Your task to perform on an android device: find which apps use the phone's location Image 0: 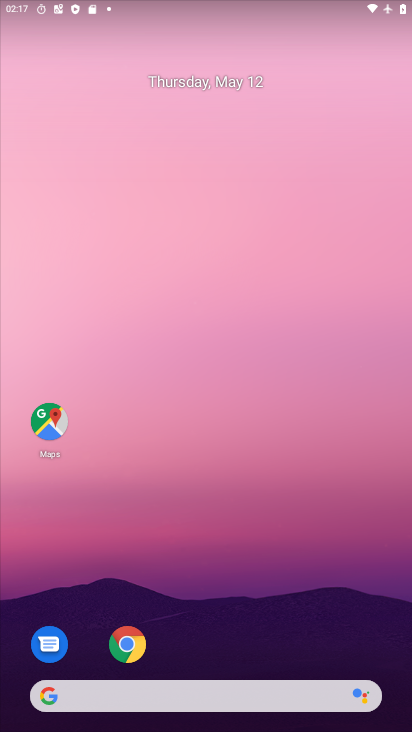
Step 0: drag from (284, 505) to (214, 134)
Your task to perform on an android device: find which apps use the phone's location Image 1: 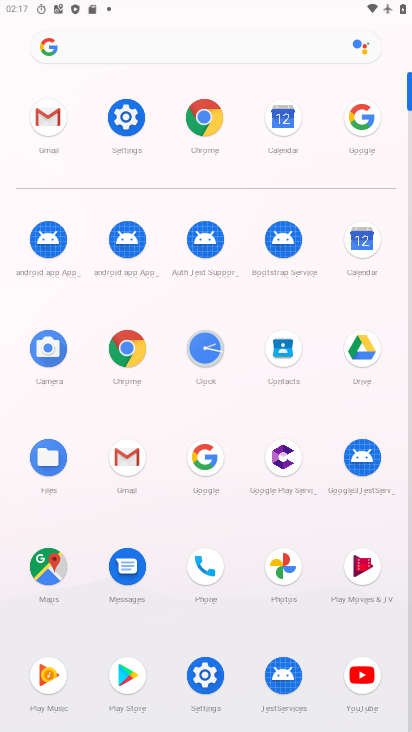
Step 1: click (121, 122)
Your task to perform on an android device: find which apps use the phone's location Image 2: 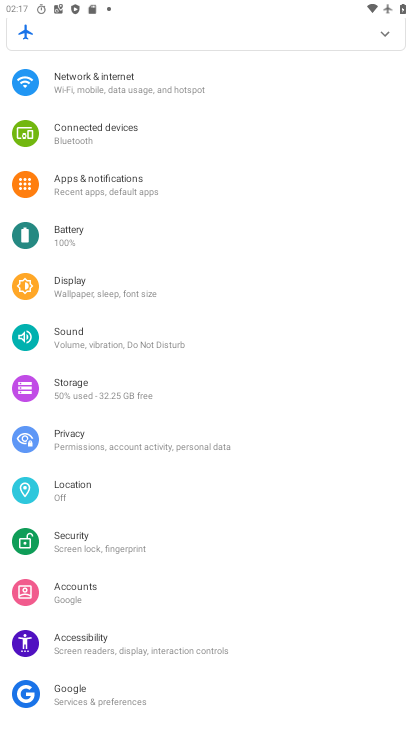
Step 2: click (142, 500)
Your task to perform on an android device: find which apps use the phone's location Image 3: 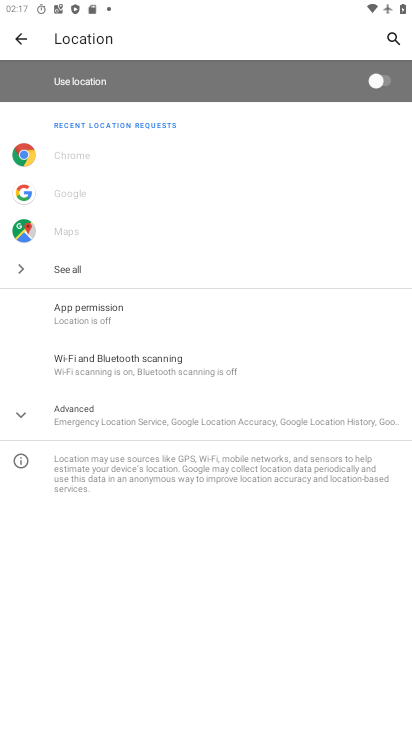
Step 3: click (115, 316)
Your task to perform on an android device: find which apps use the phone's location Image 4: 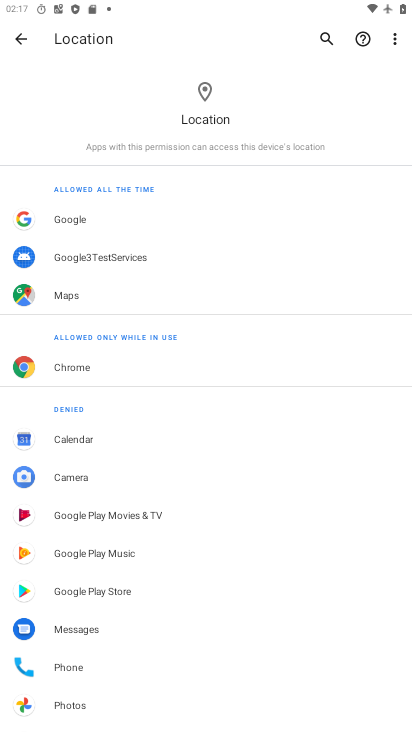
Step 4: task complete